Your task to perform on an android device: Go to internet settings Image 0: 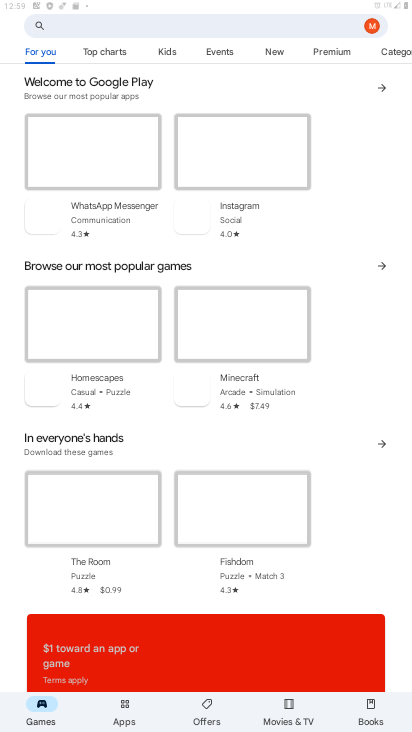
Step 0: drag from (264, 702) to (272, 280)
Your task to perform on an android device: Go to internet settings Image 1: 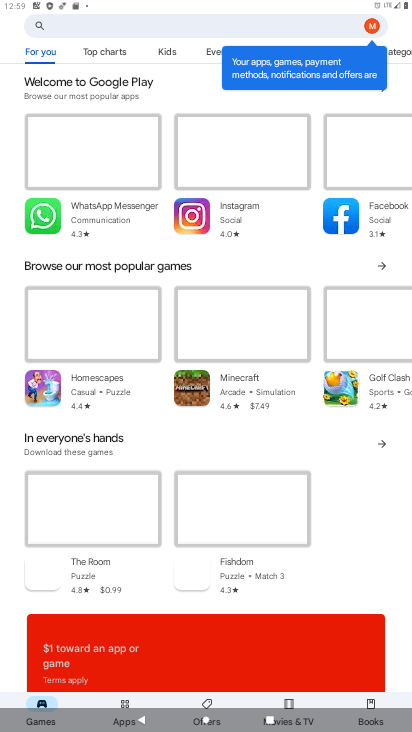
Step 1: press home button
Your task to perform on an android device: Go to internet settings Image 2: 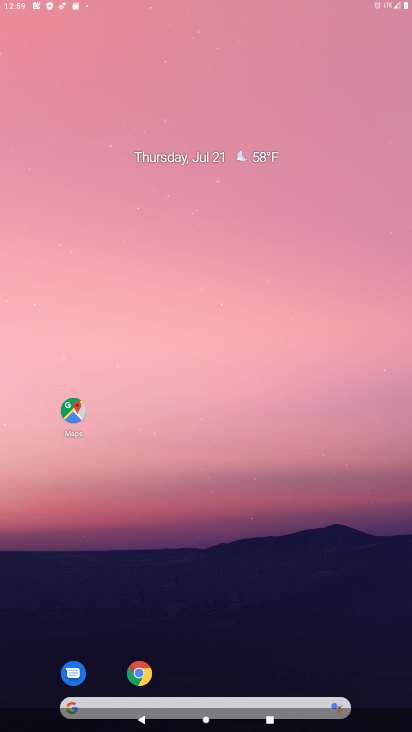
Step 2: drag from (233, 661) to (355, 156)
Your task to perform on an android device: Go to internet settings Image 3: 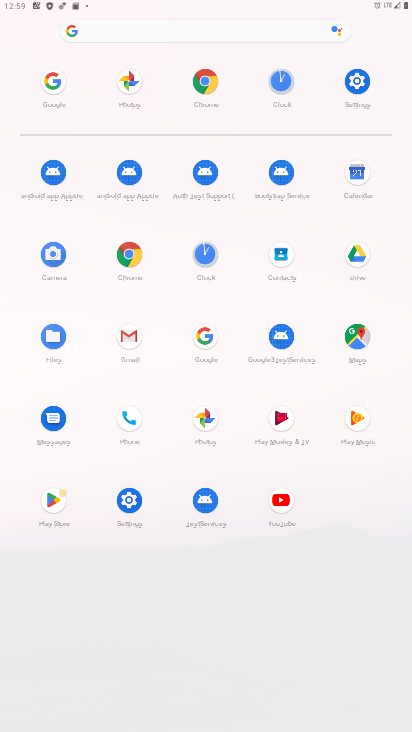
Step 3: click (358, 82)
Your task to perform on an android device: Go to internet settings Image 4: 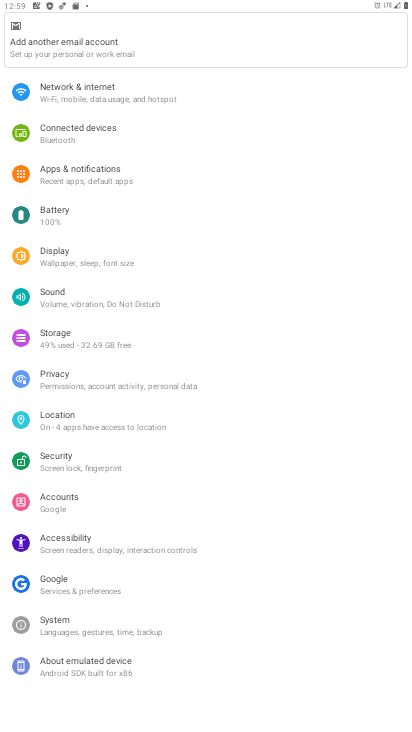
Step 4: click (107, 100)
Your task to perform on an android device: Go to internet settings Image 5: 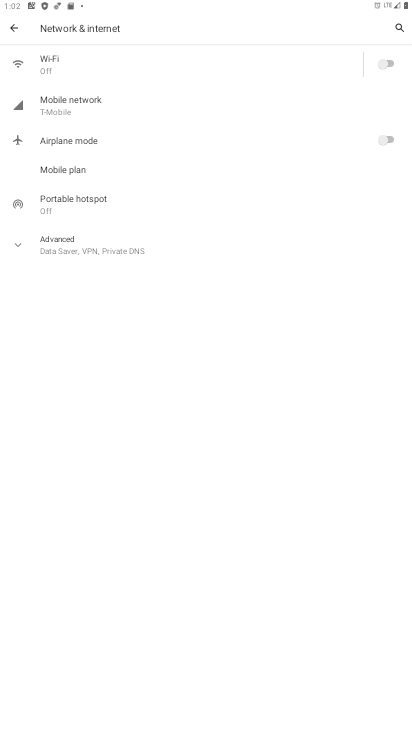
Step 5: task complete